Your task to perform on an android device: What's the weather going to be this weekend? Image 0: 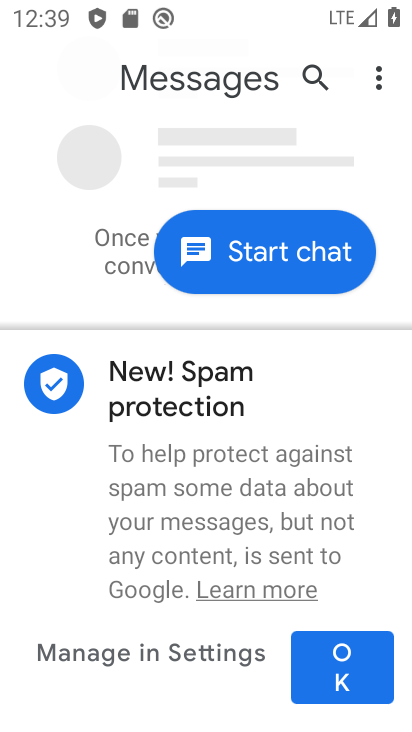
Step 0: press back button
Your task to perform on an android device: What's the weather going to be this weekend? Image 1: 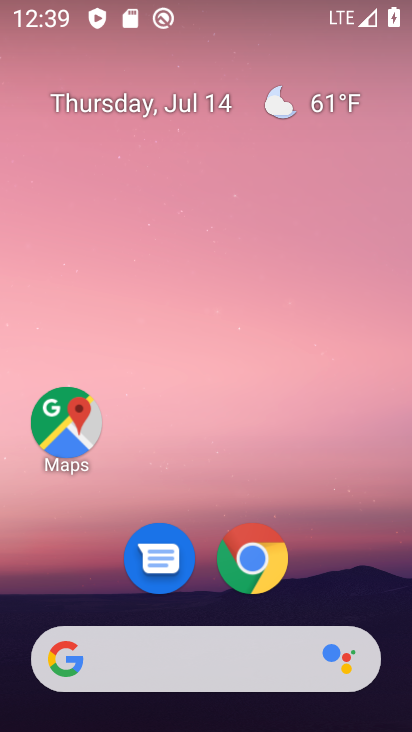
Step 1: drag from (83, 518) to (231, 2)
Your task to perform on an android device: What's the weather going to be this weekend? Image 2: 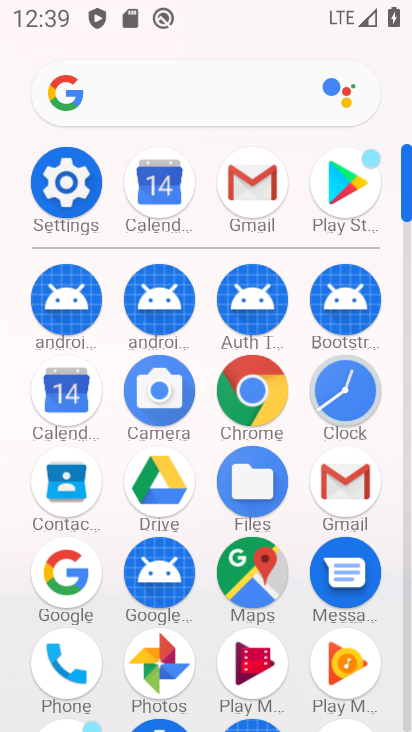
Step 2: click (69, 405)
Your task to perform on an android device: What's the weather going to be this weekend? Image 3: 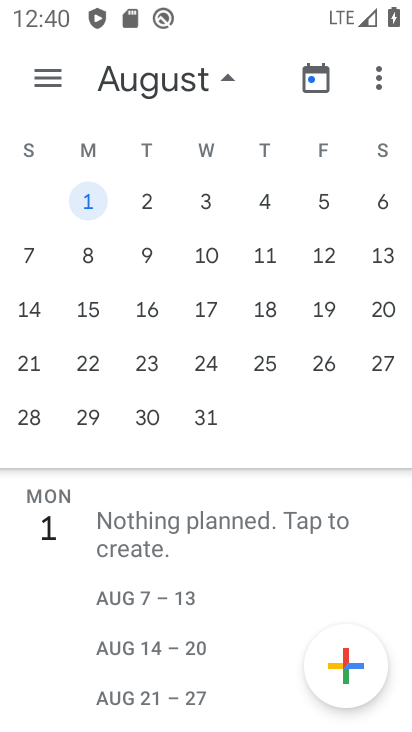
Step 3: press back button
Your task to perform on an android device: What's the weather going to be this weekend? Image 4: 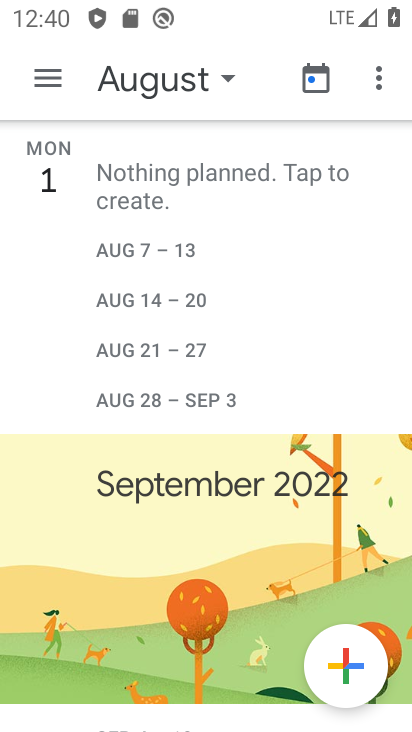
Step 4: press back button
Your task to perform on an android device: What's the weather going to be this weekend? Image 5: 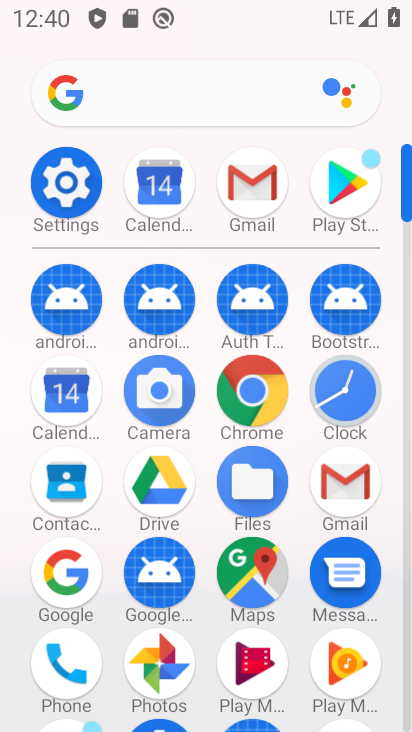
Step 5: click (139, 95)
Your task to perform on an android device: What's the weather going to be this weekend? Image 6: 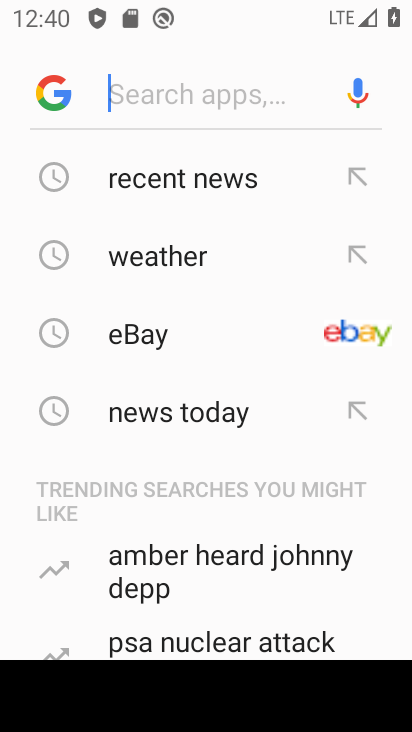
Step 6: click (149, 249)
Your task to perform on an android device: What's the weather going to be this weekend? Image 7: 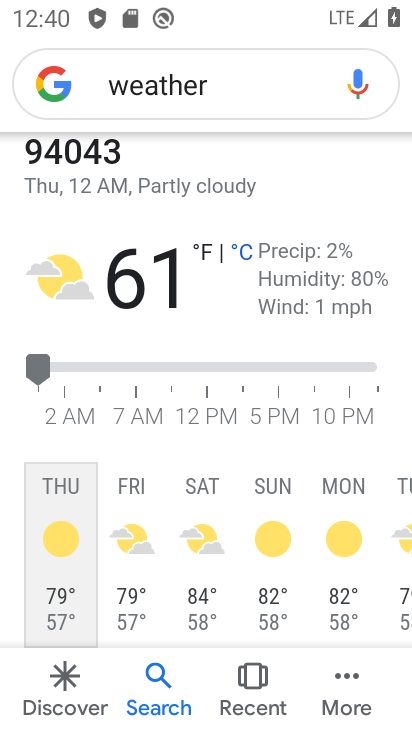
Step 7: task complete